Your task to perform on an android device: Set an alarm for 7am Image 0: 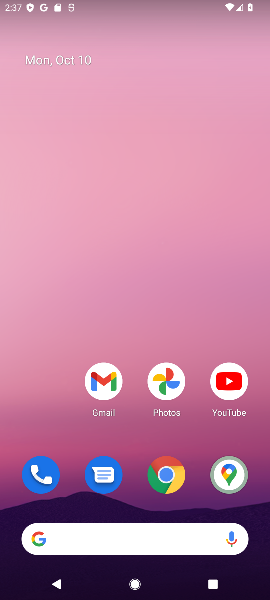
Step 0: drag from (147, 555) to (148, 144)
Your task to perform on an android device: Set an alarm for 7am Image 1: 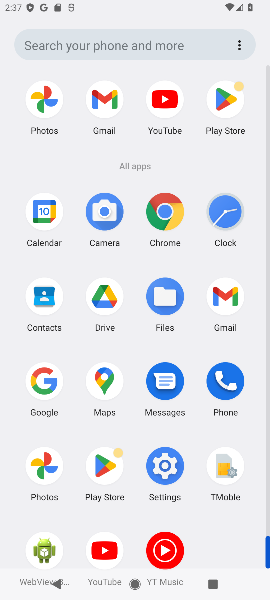
Step 1: click (214, 211)
Your task to perform on an android device: Set an alarm for 7am Image 2: 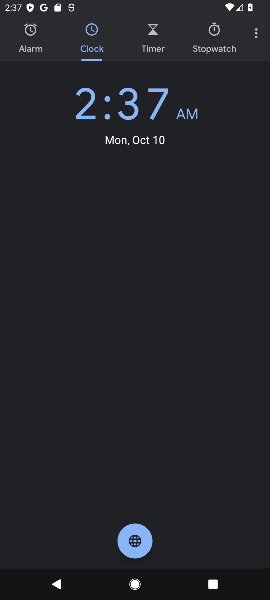
Step 2: click (28, 46)
Your task to perform on an android device: Set an alarm for 7am Image 3: 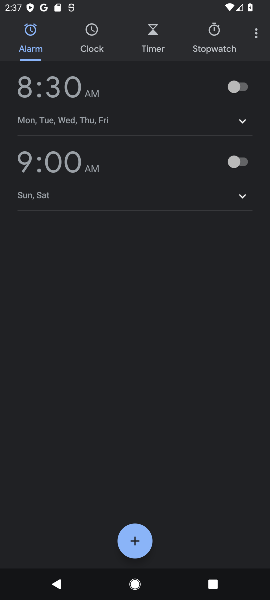
Step 3: click (134, 533)
Your task to perform on an android device: Set an alarm for 7am Image 4: 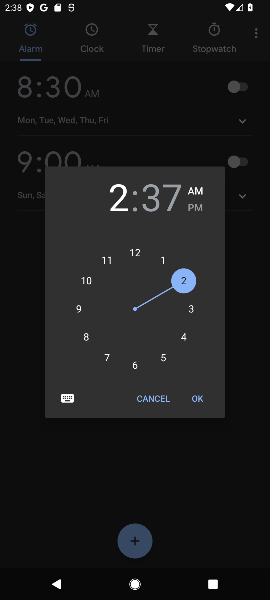
Step 4: click (105, 353)
Your task to perform on an android device: Set an alarm for 7am Image 5: 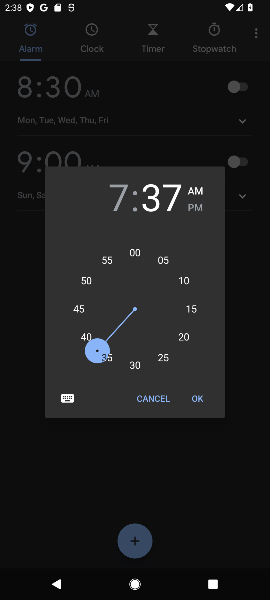
Step 5: click (137, 257)
Your task to perform on an android device: Set an alarm for 7am Image 6: 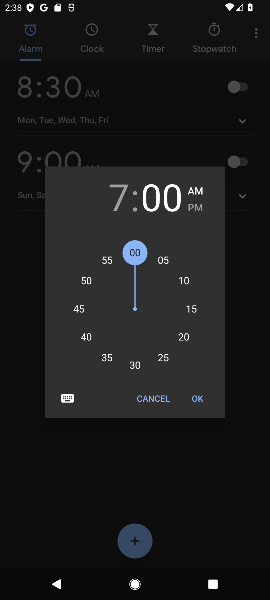
Step 6: click (195, 401)
Your task to perform on an android device: Set an alarm for 7am Image 7: 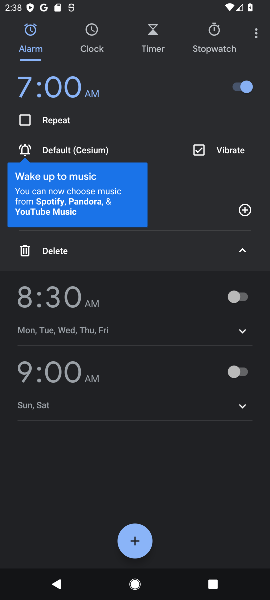
Step 7: task complete